Your task to perform on an android device: add a contact in the contacts app Image 0: 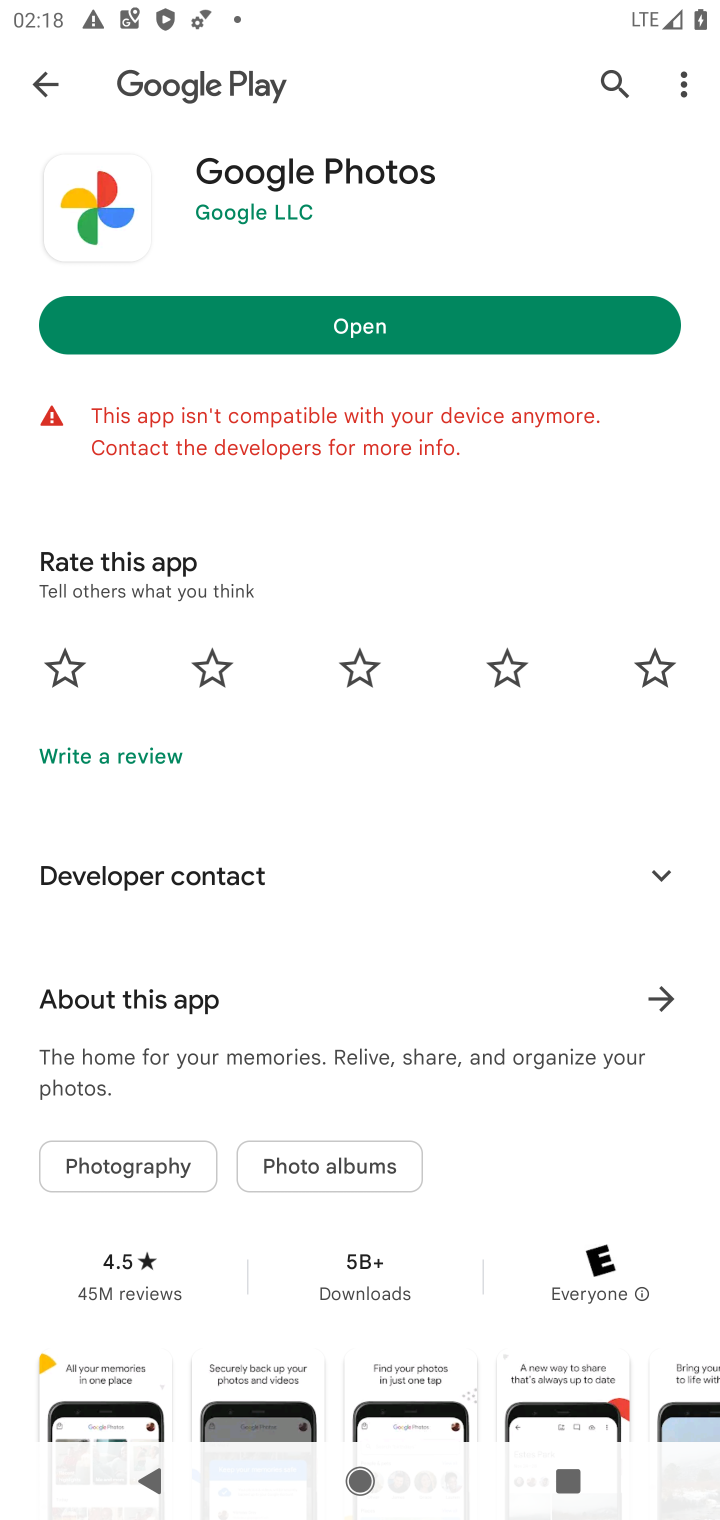
Step 0: press home button
Your task to perform on an android device: add a contact in the contacts app Image 1: 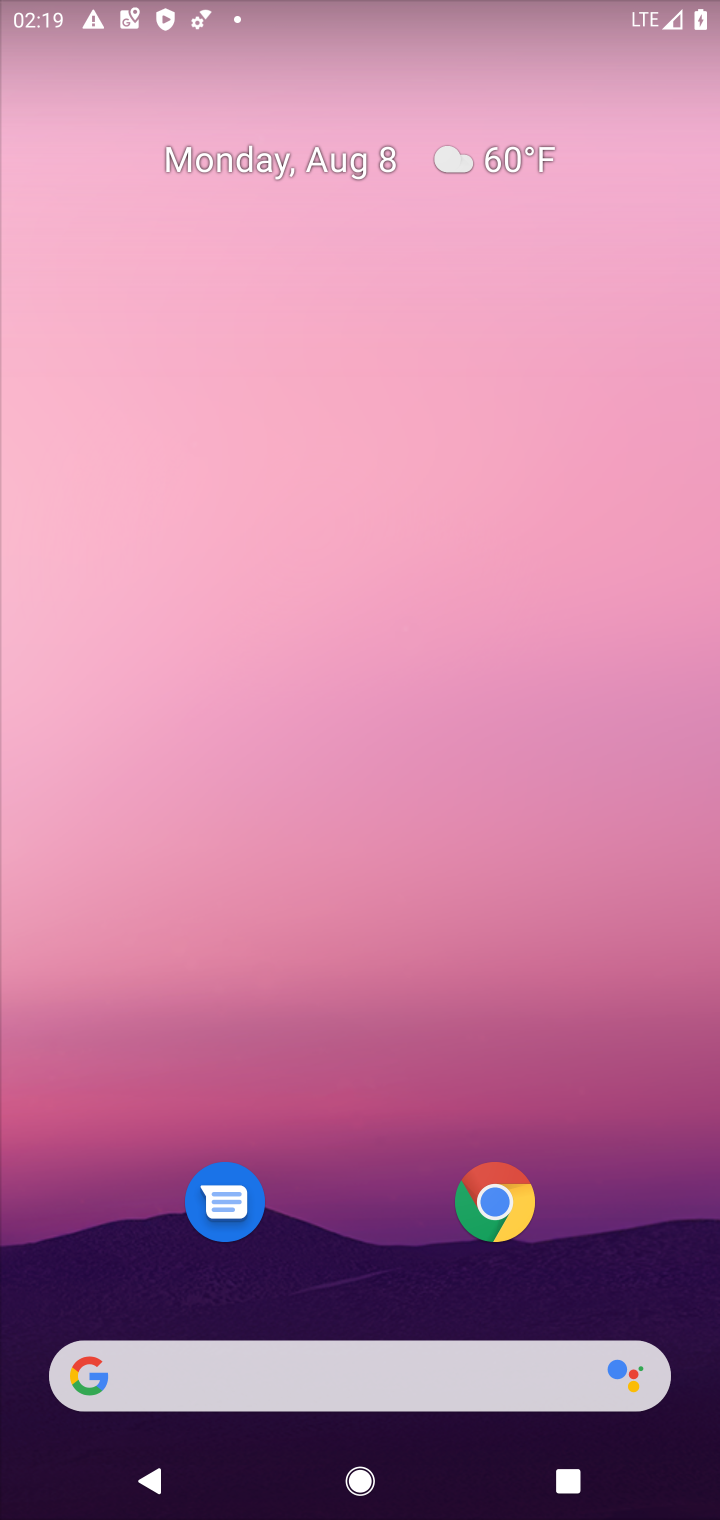
Step 1: drag from (312, 845) to (419, 306)
Your task to perform on an android device: add a contact in the contacts app Image 2: 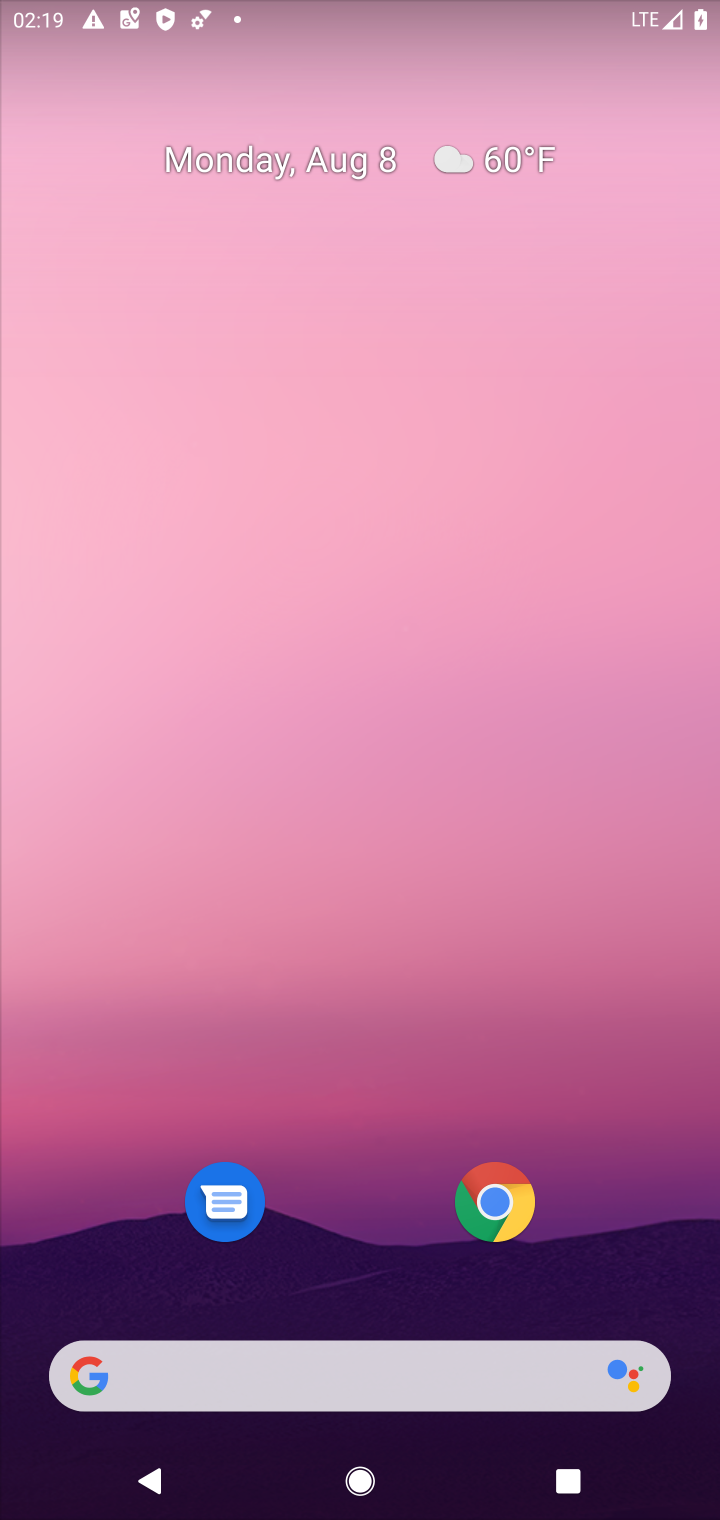
Step 2: drag from (338, 1170) to (492, 61)
Your task to perform on an android device: add a contact in the contacts app Image 3: 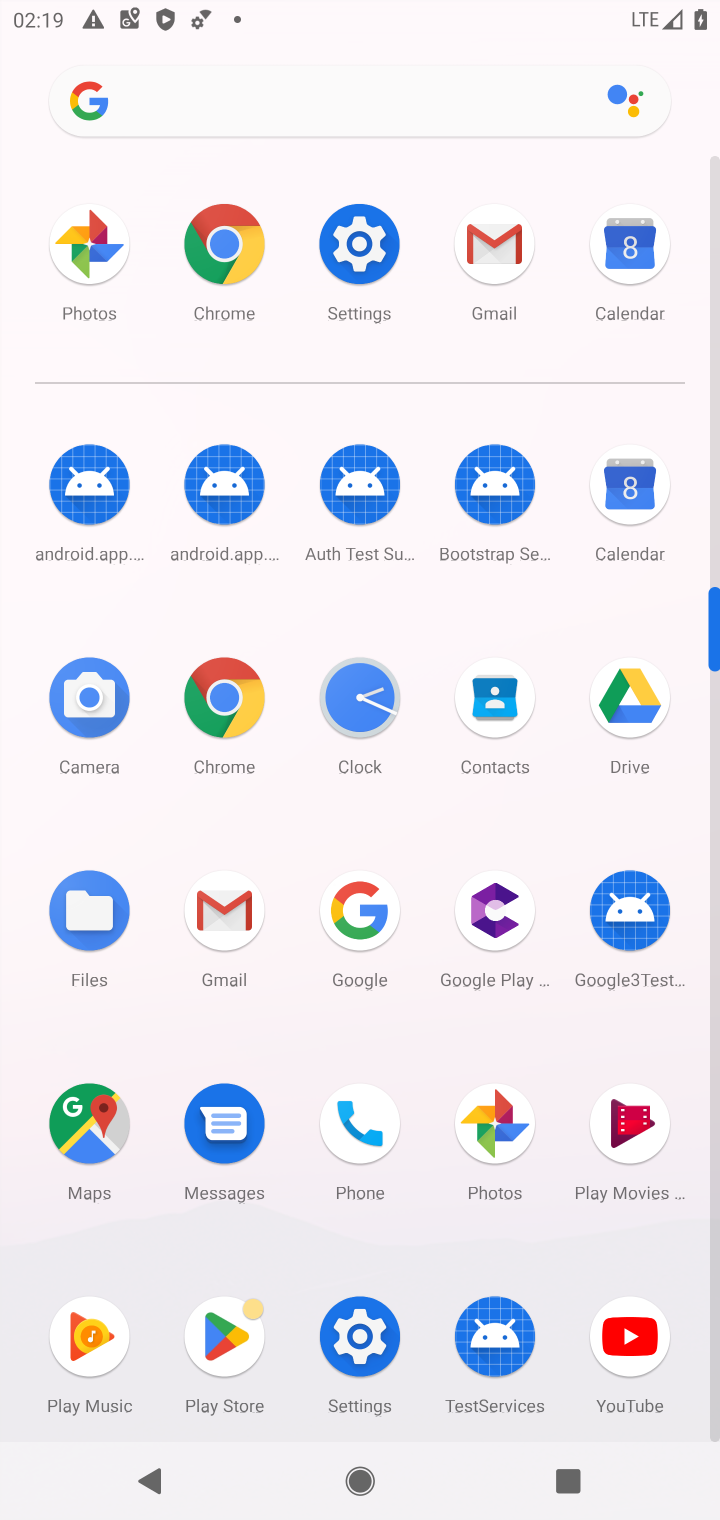
Step 3: click (488, 711)
Your task to perform on an android device: add a contact in the contacts app Image 4: 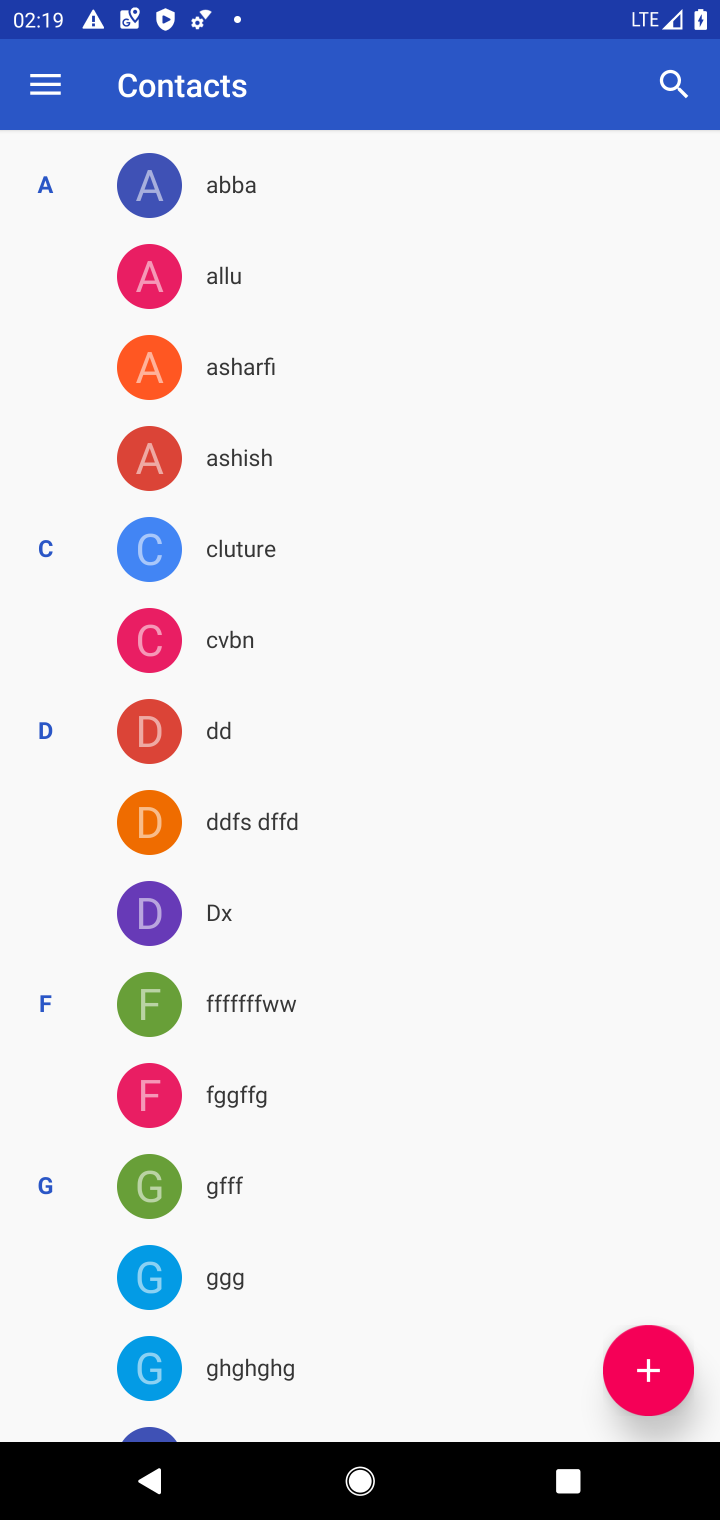
Step 4: click (650, 1378)
Your task to perform on an android device: add a contact in the contacts app Image 5: 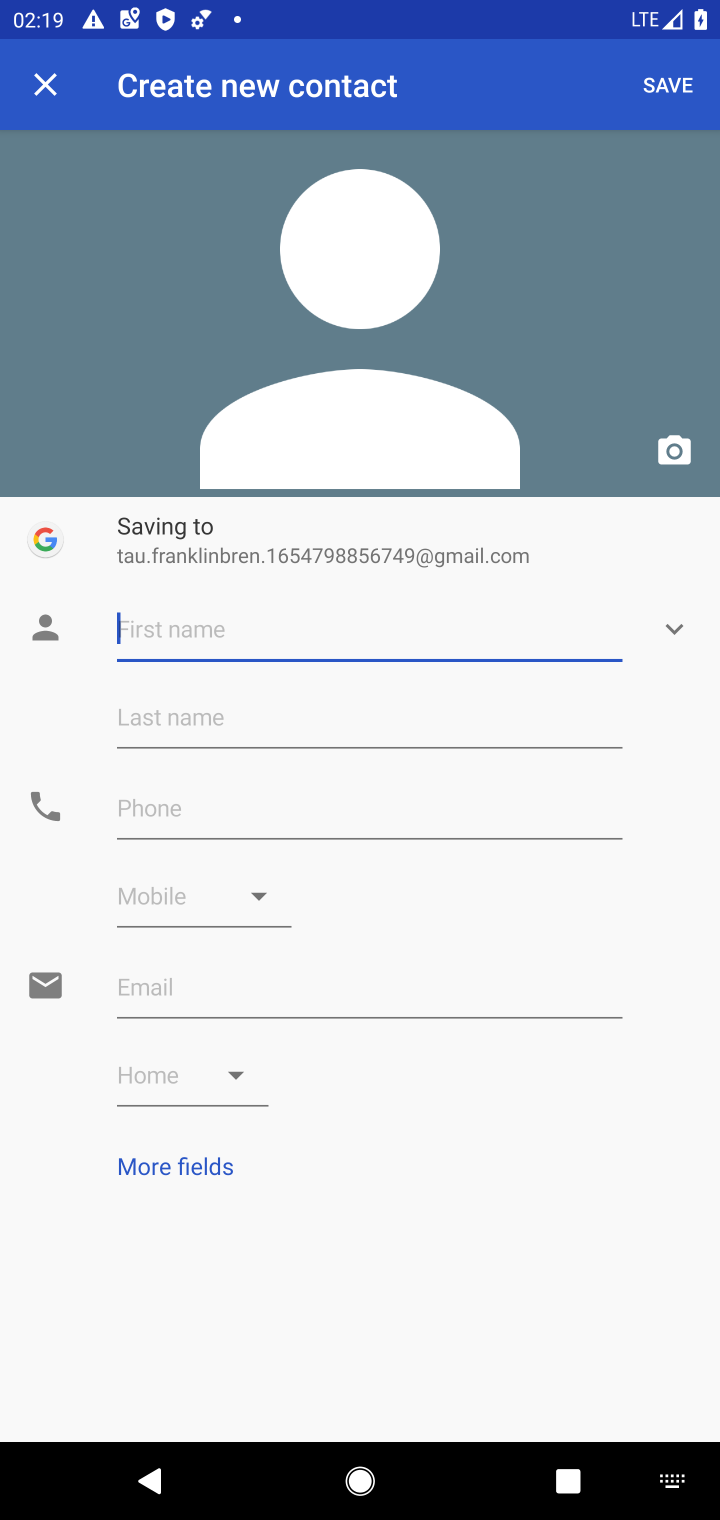
Step 5: click (216, 640)
Your task to perform on an android device: add a contact in the contacts app Image 6: 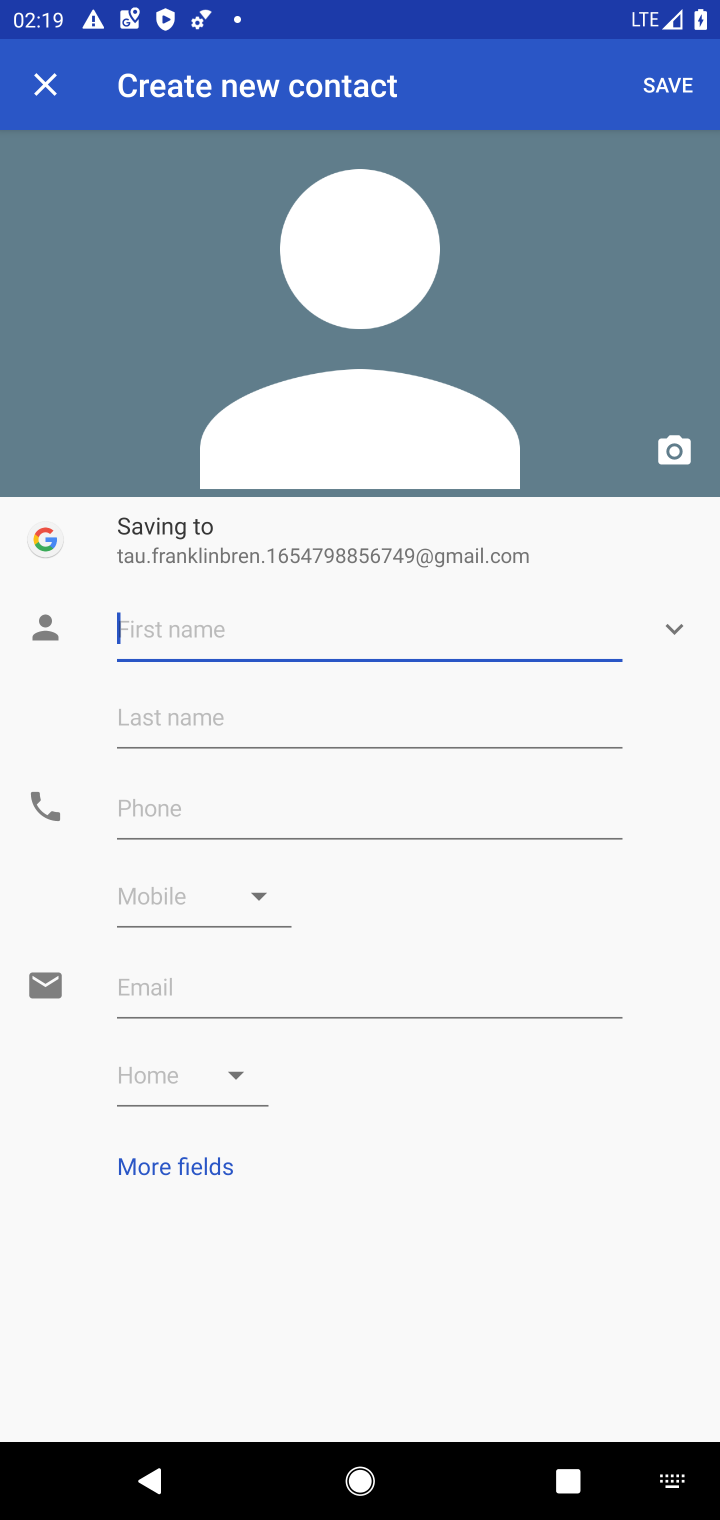
Step 6: type "Parvati"
Your task to perform on an android device: add a contact in the contacts app Image 7: 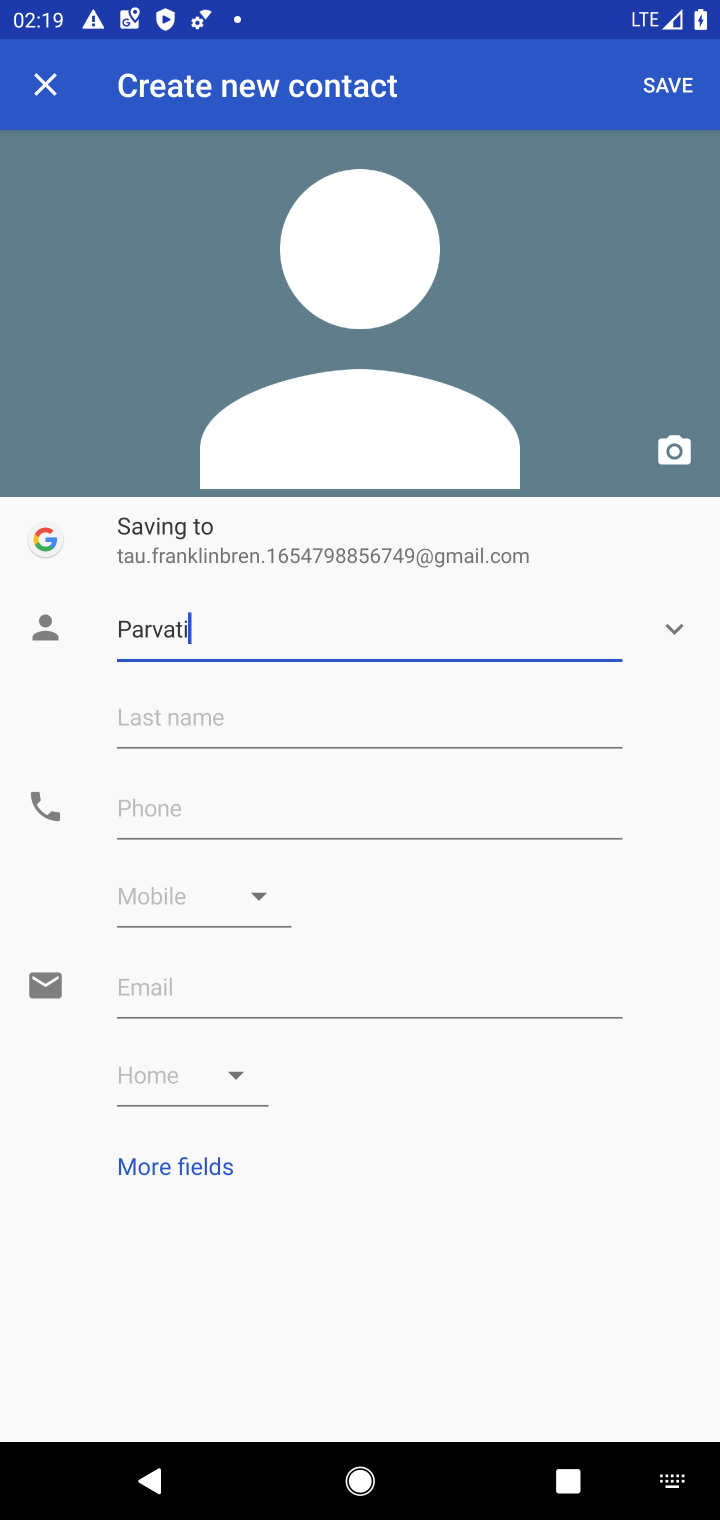
Step 7: click (464, 715)
Your task to perform on an android device: add a contact in the contacts app Image 8: 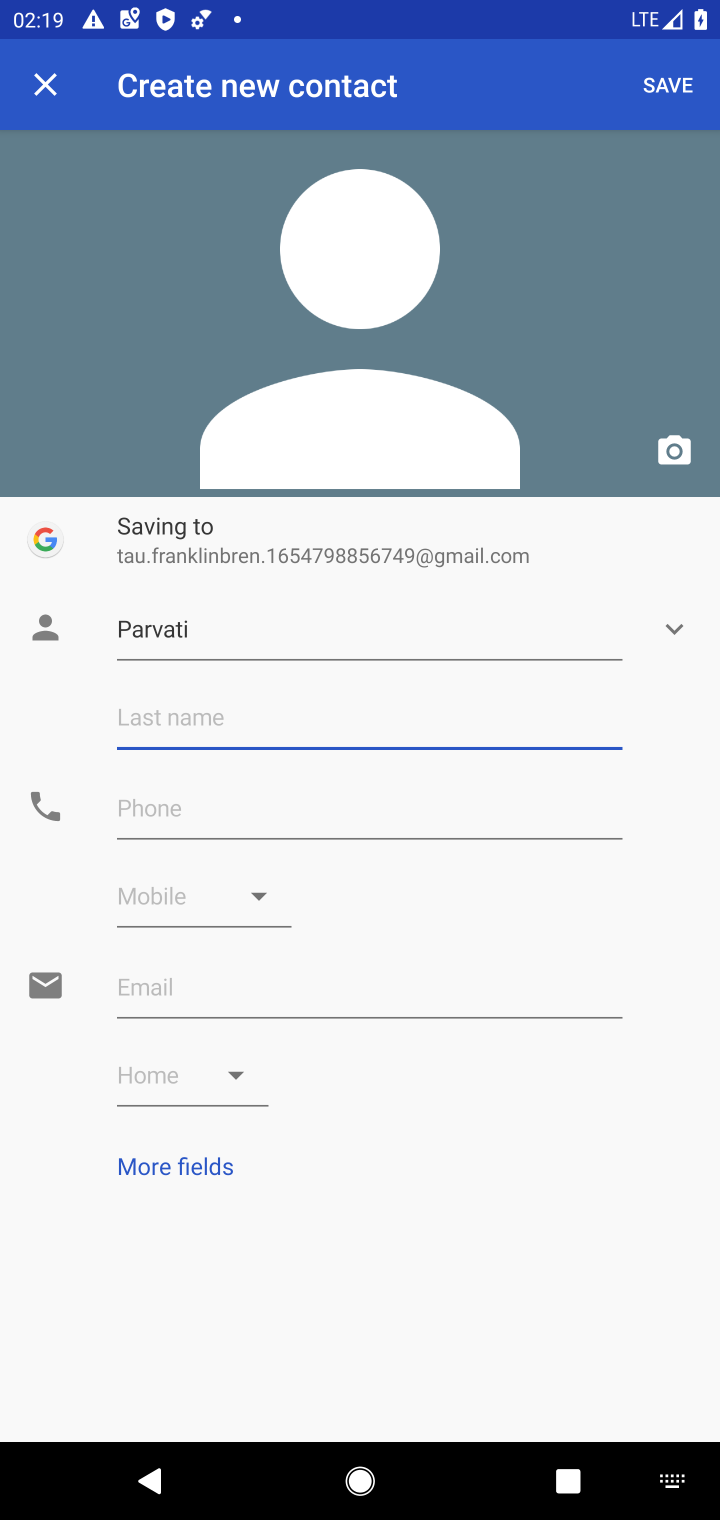
Step 8: type "Maa"
Your task to perform on an android device: add a contact in the contacts app Image 9: 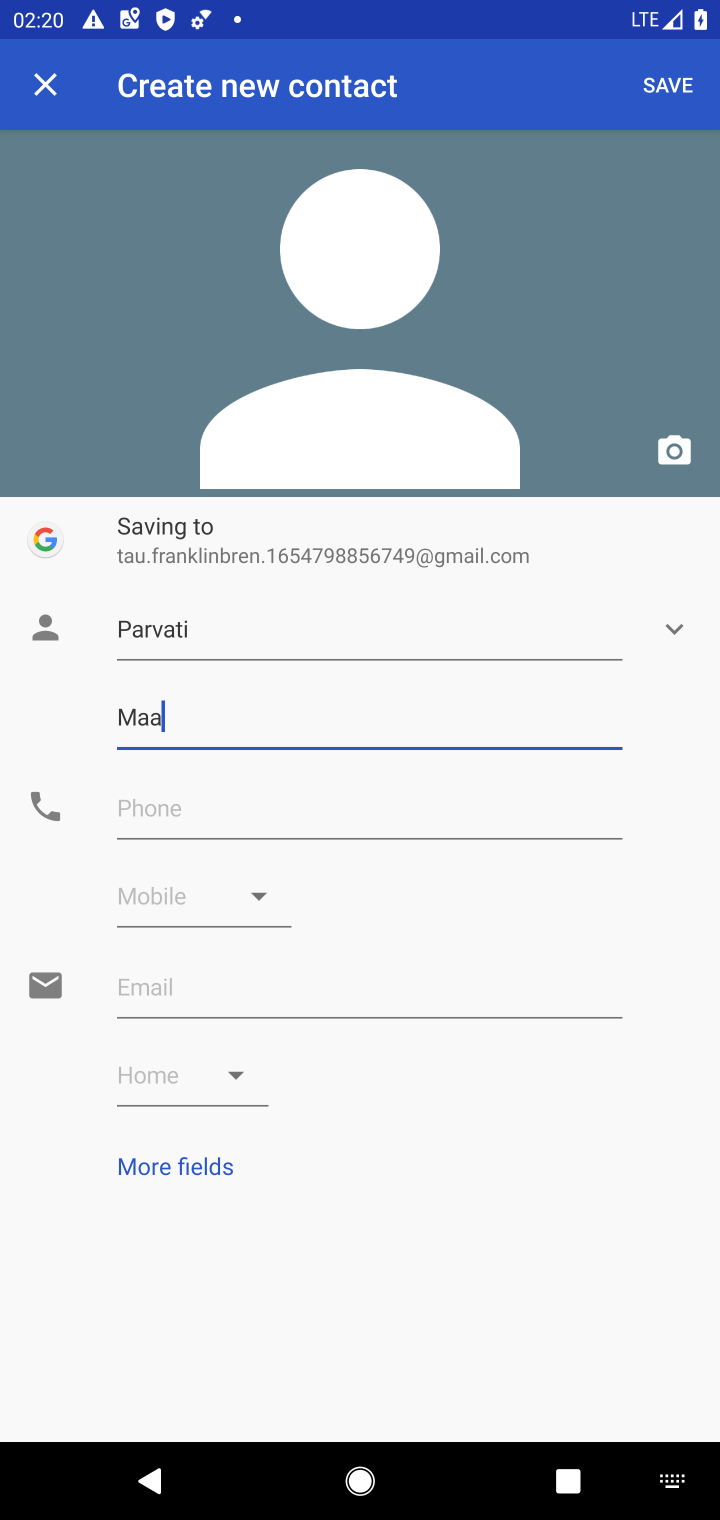
Step 9: click (452, 814)
Your task to perform on an android device: add a contact in the contacts app Image 10: 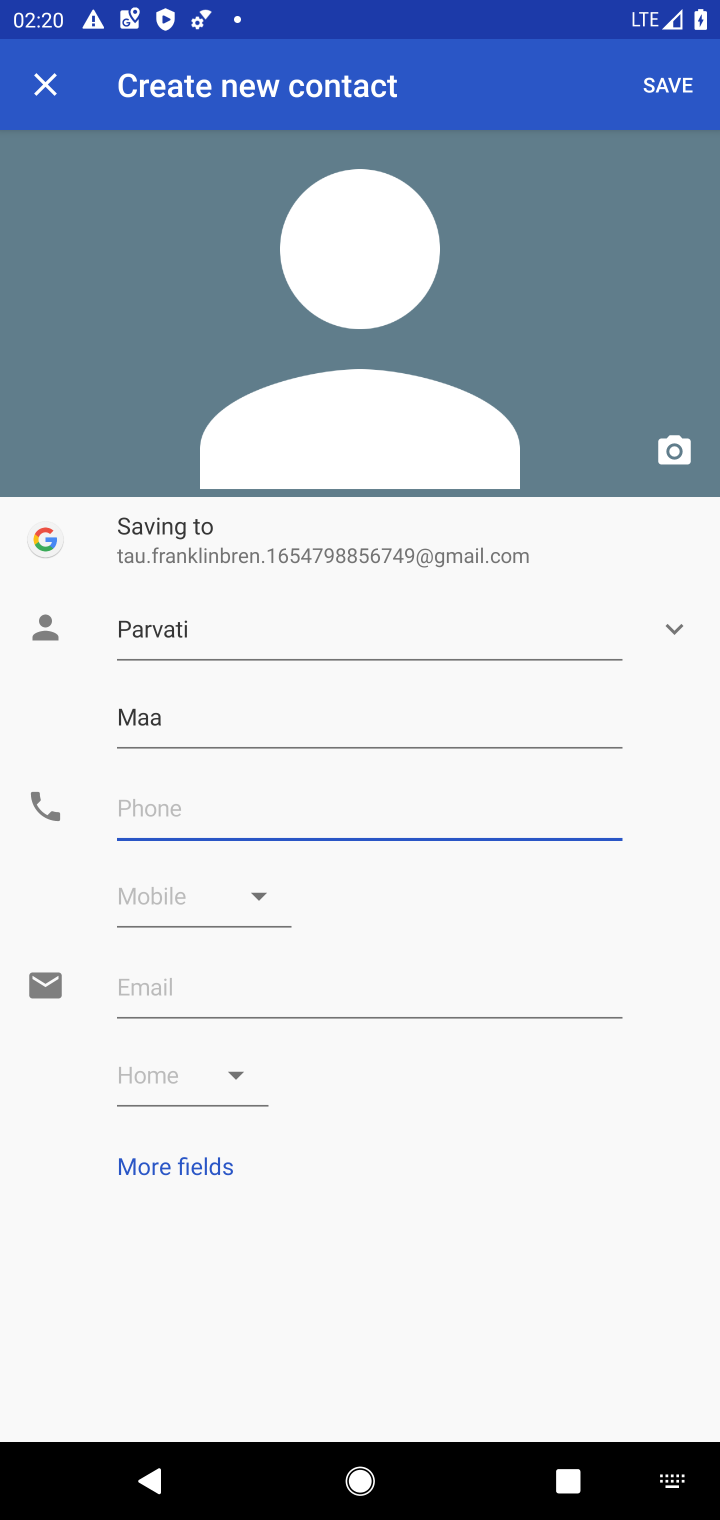
Step 10: type "8767890098"
Your task to perform on an android device: add a contact in the contacts app Image 11: 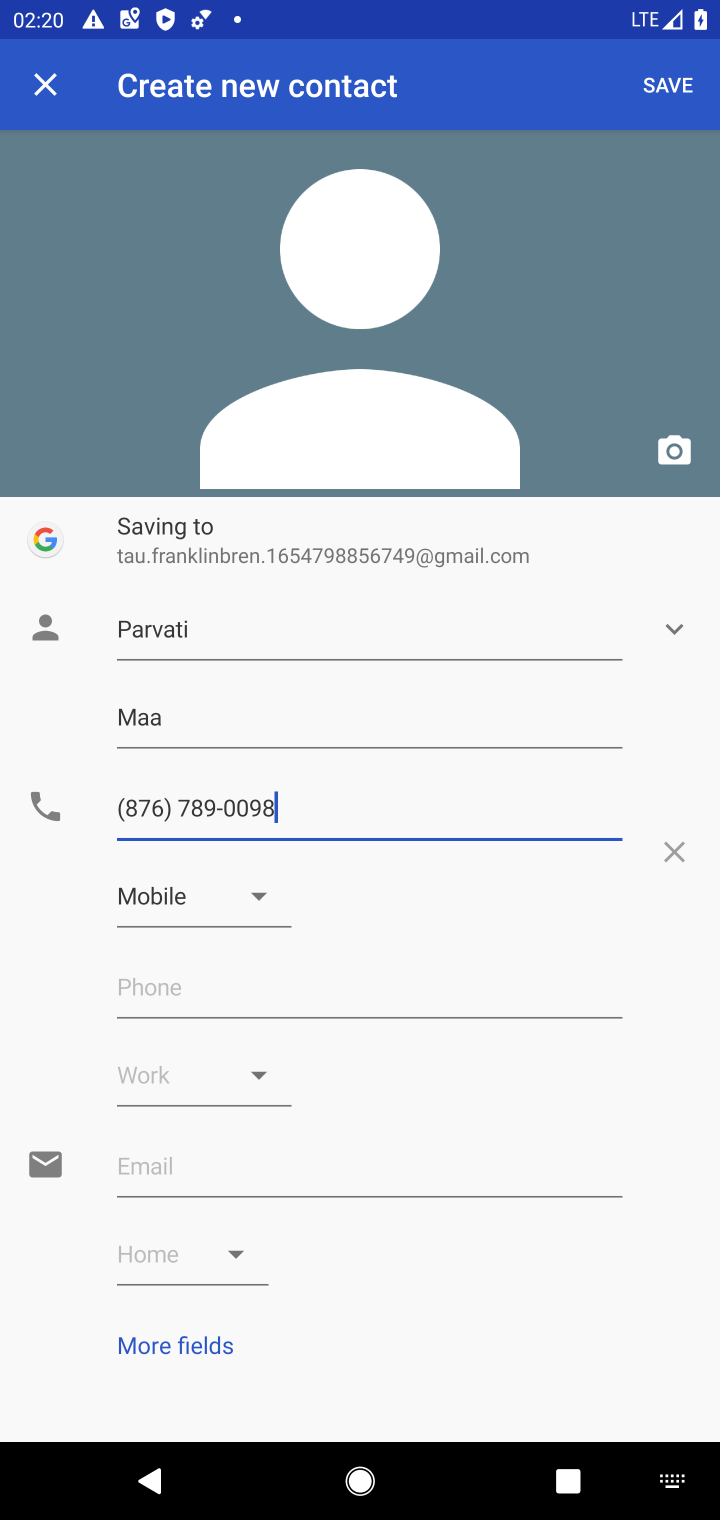
Step 11: click (653, 86)
Your task to perform on an android device: add a contact in the contacts app Image 12: 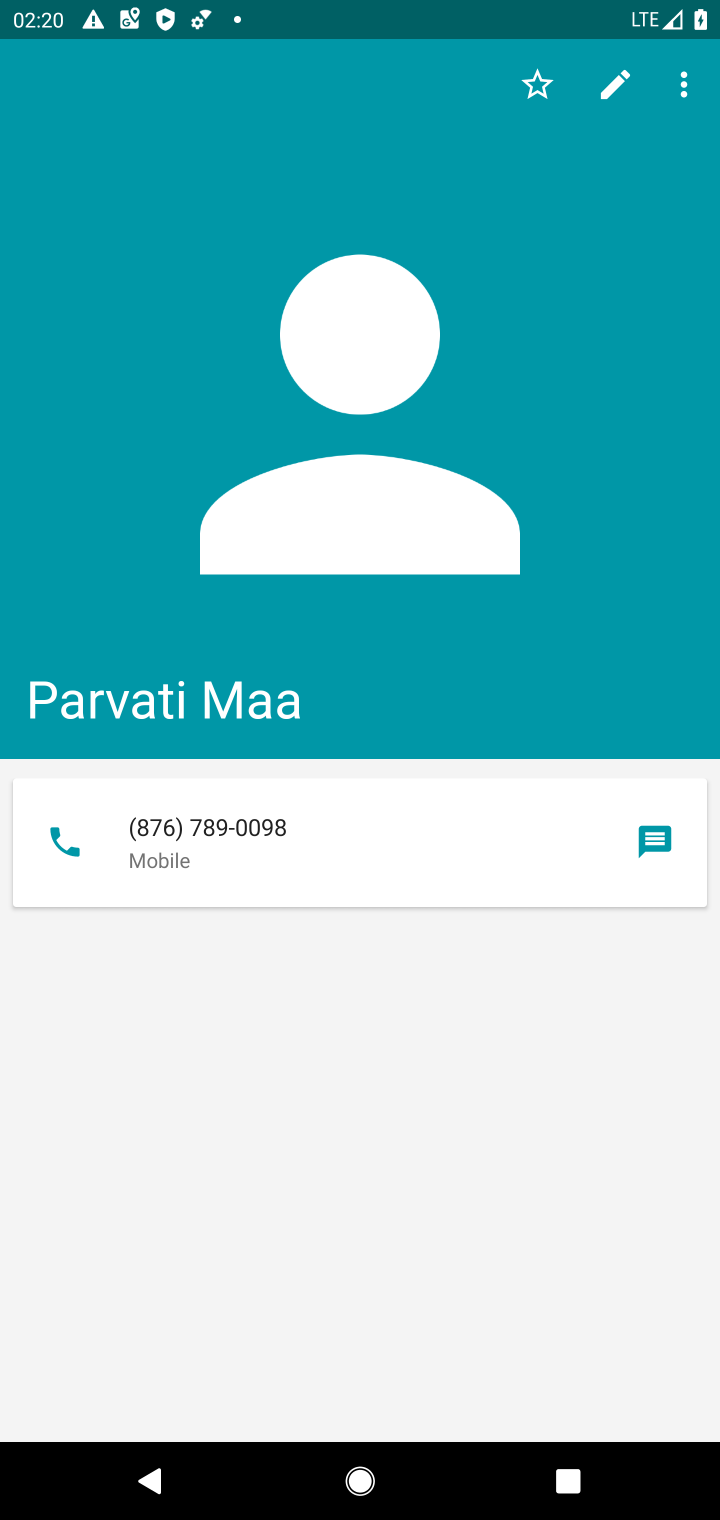
Step 12: task complete